Your task to perform on an android device: turn notification dots on Image 0: 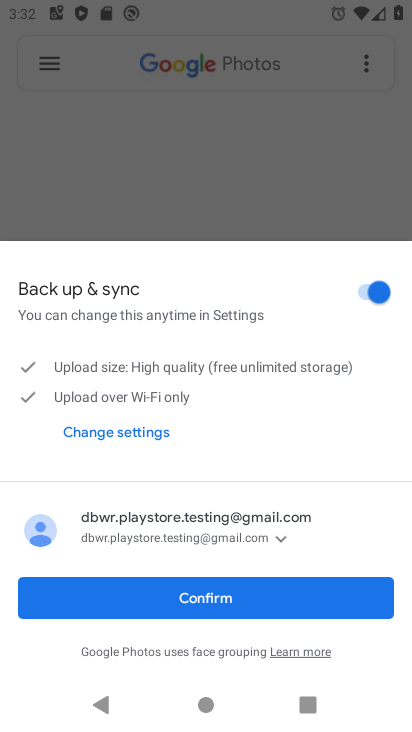
Step 0: press home button
Your task to perform on an android device: turn notification dots on Image 1: 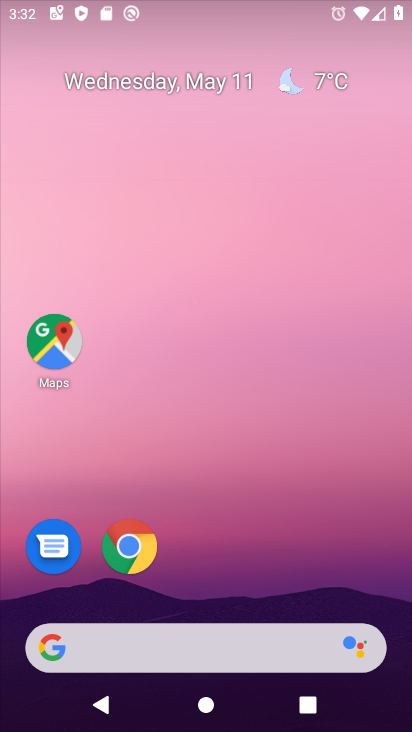
Step 1: drag from (263, 612) to (295, 13)
Your task to perform on an android device: turn notification dots on Image 2: 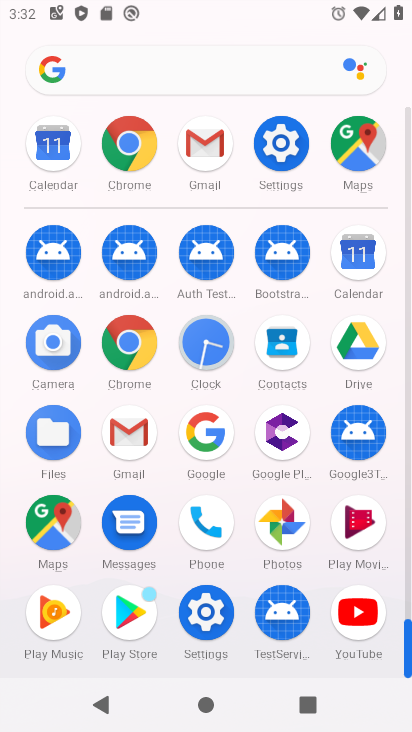
Step 2: click (282, 157)
Your task to perform on an android device: turn notification dots on Image 3: 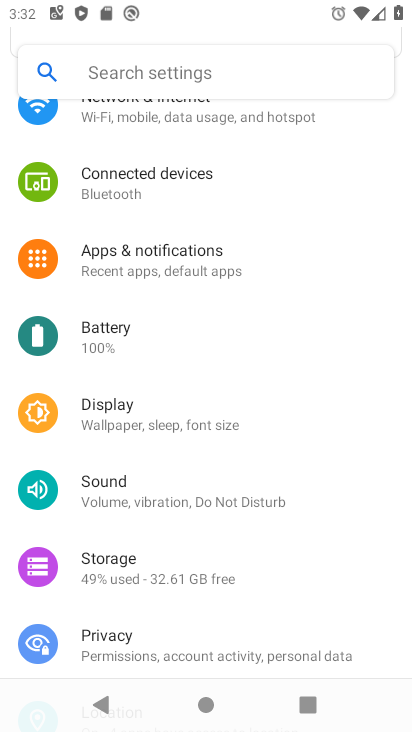
Step 3: click (187, 251)
Your task to perform on an android device: turn notification dots on Image 4: 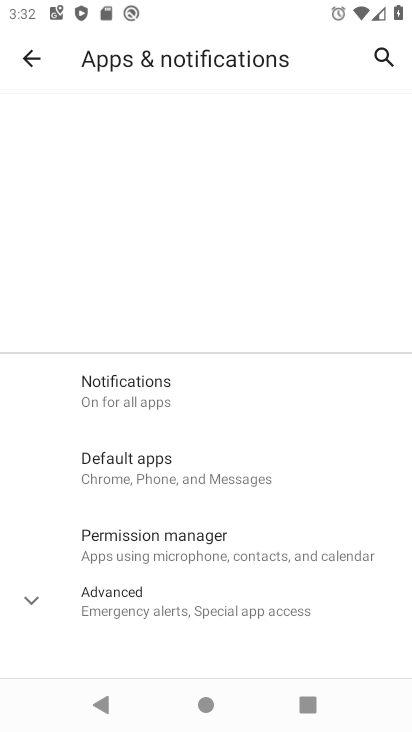
Step 4: drag from (292, 614) to (295, 188)
Your task to perform on an android device: turn notification dots on Image 5: 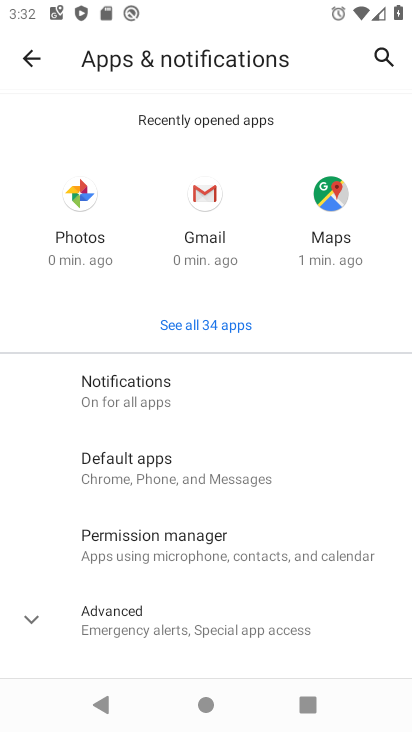
Step 5: click (197, 632)
Your task to perform on an android device: turn notification dots on Image 6: 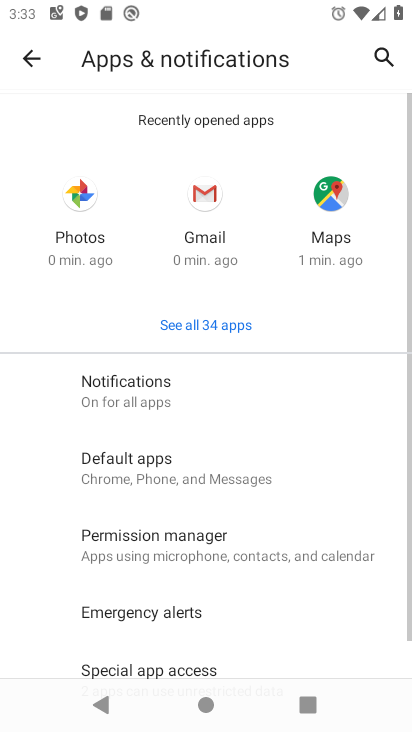
Step 6: click (191, 385)
Your task to perform on an android device: turn notification dots on Image 7: 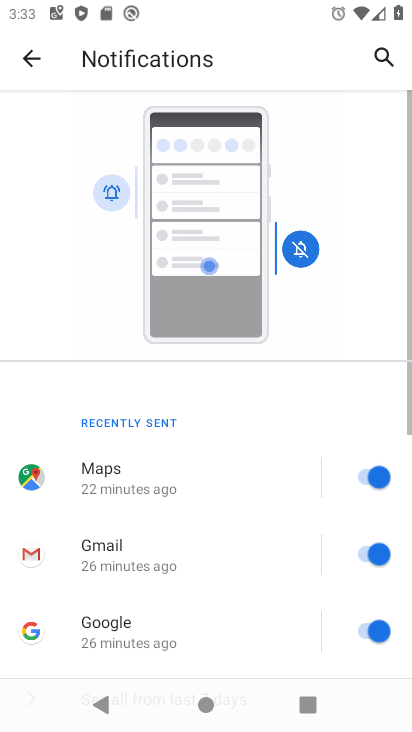
Step 7: drag from (255, 638) to (284, 137)
Your task to perform on an android device: turn notification dots on Image 8: 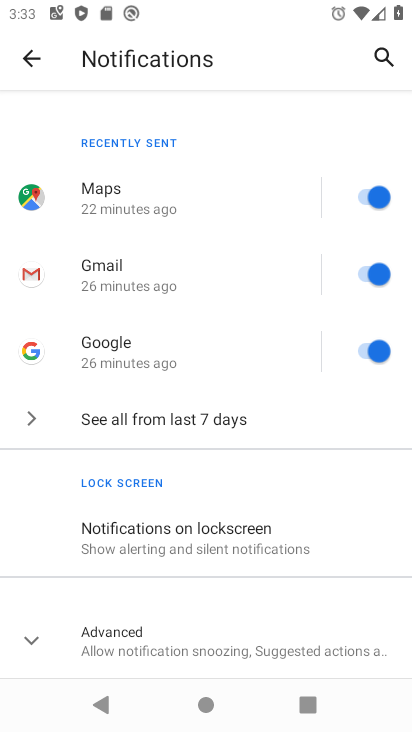
Step 8: click (245, 650)
Your task to perform on an android device: turn notification dots on Image 9: 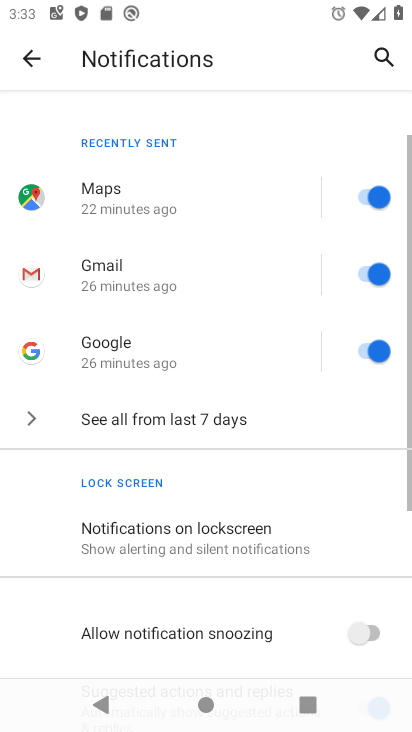
Step 9: task complete